Your task to perform on an android device: Open Wikipedia Image 0: 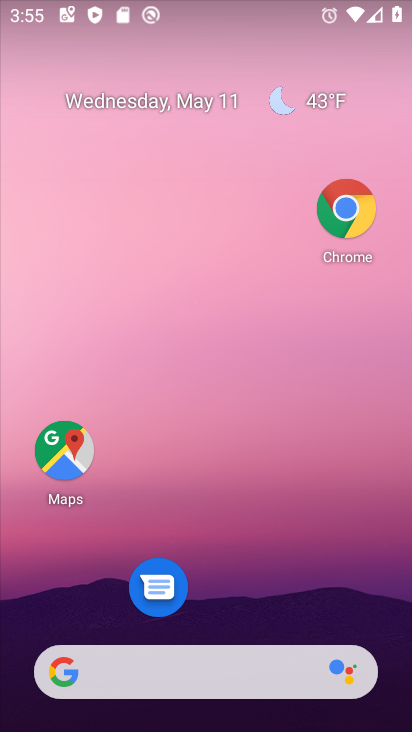
Step 0: click (336, 212)
Your task to perform on an android device: Open Wikipedia Image 1: 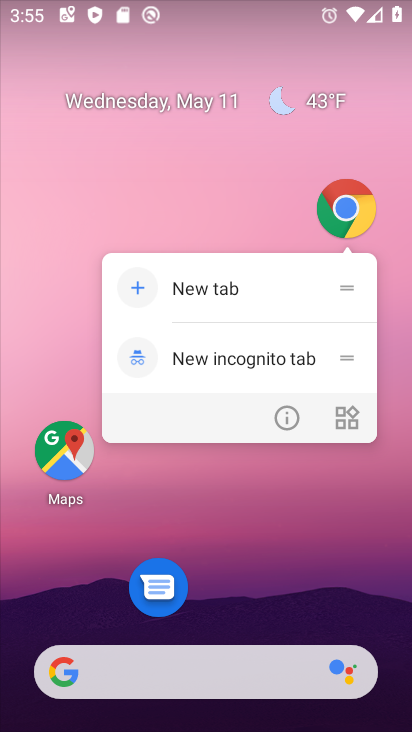
Step 1: click (370, 202)
Your task to perform on an android device: Open Wikipedia Image 2: 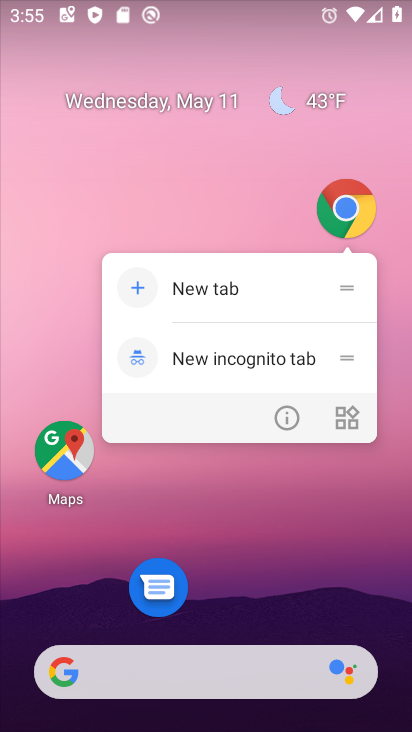
Step 2: click (370, 202)
Your task to perform on an android device: Open Wikipedia Image 3: 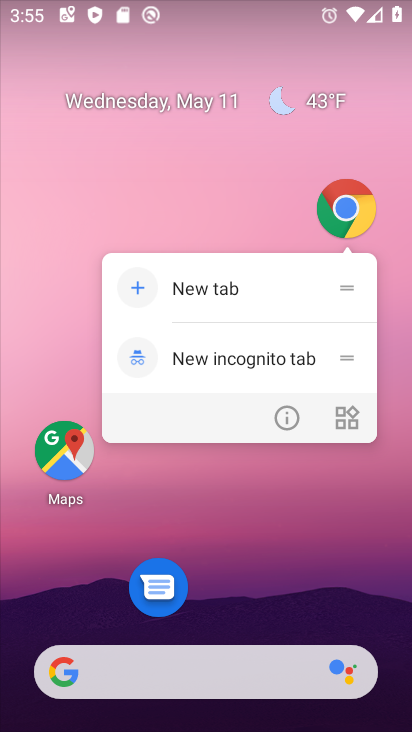
Step 3: click (370, 202)
Your task to perform on an android device: Open Wikipedia Image 4: 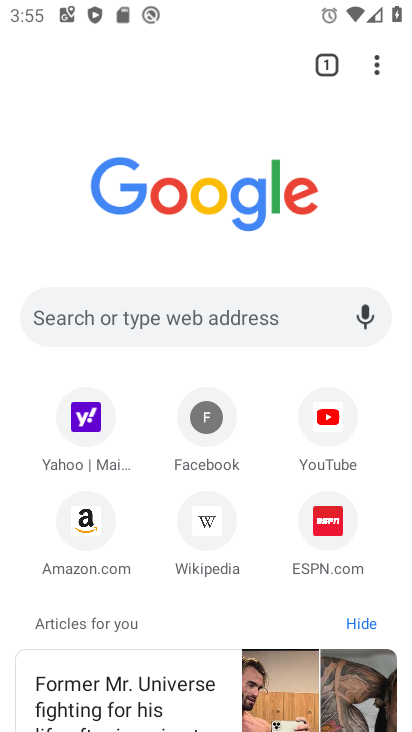
Step 4: click (199, 513)
Your task to perform on an android device: Open Wikipedia Image 5: 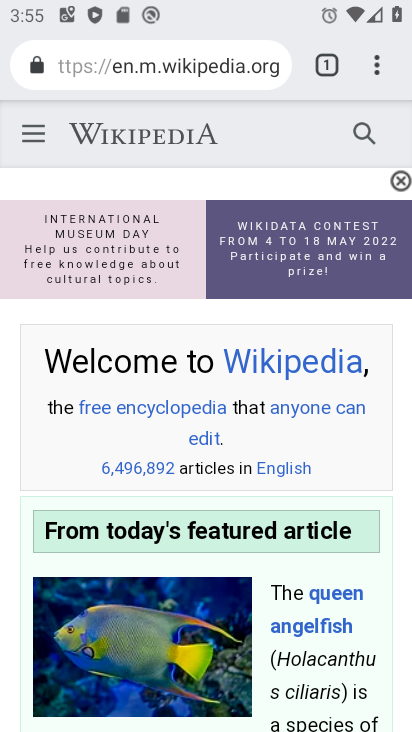
Step 5: task complete